Your task to perform on an android device: Find a nice sofa on eBay Image 0: 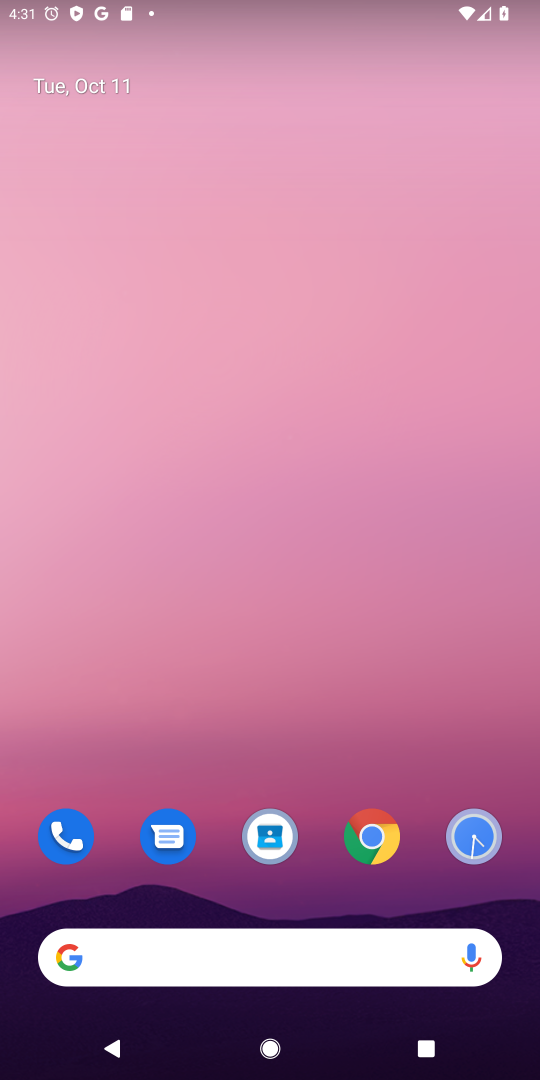
Step 0: click (249, 970)
Your task to perform on an android device: Find a nice sofa on eBay Image 1: 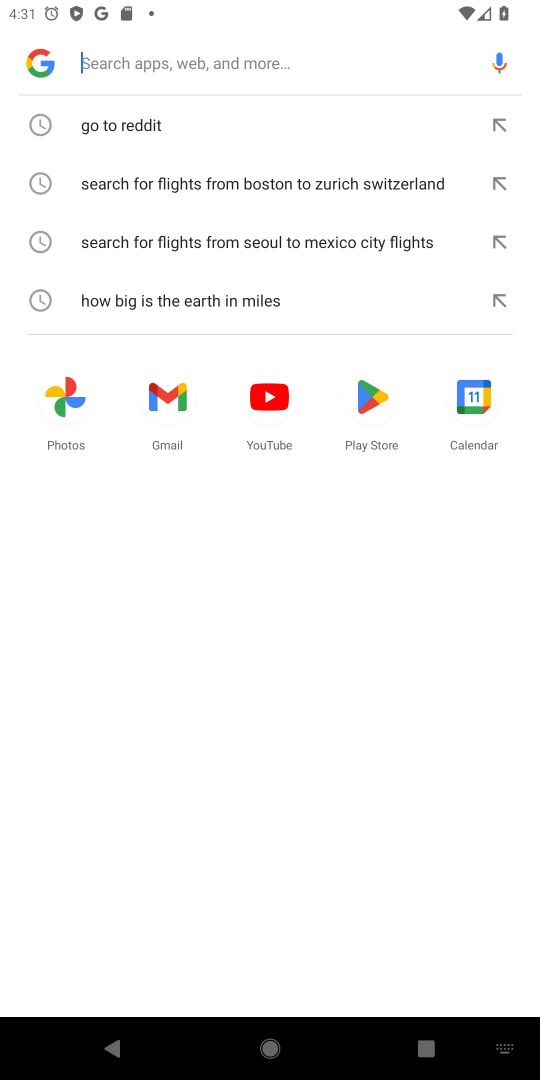
Step 1: type "ebay"
Your task to perform on an android device: Find a nice sofa on eBay Image 2: 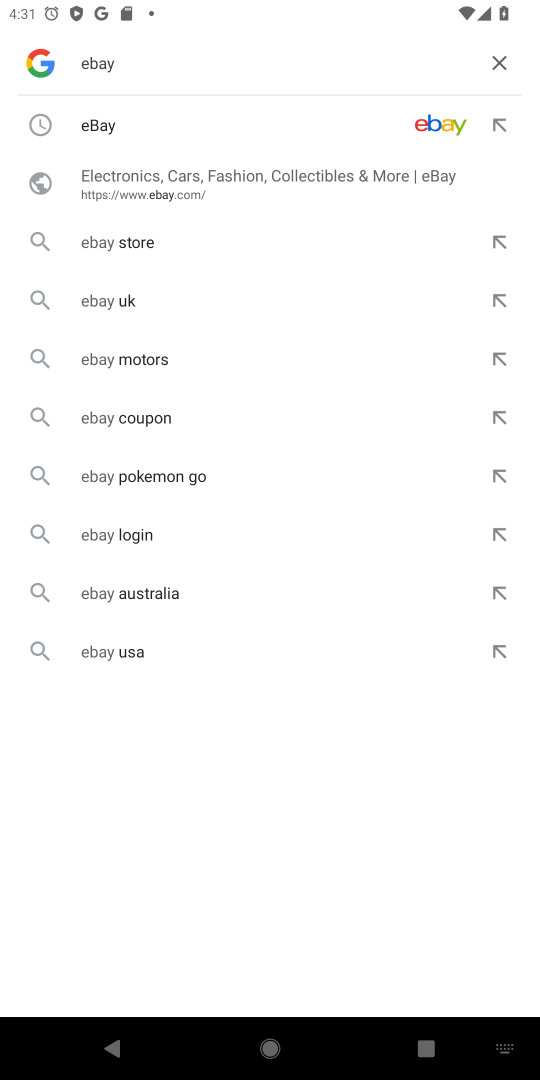
Step 2: click (202, 121)
Your task to perform on an android device: Find a nice sofa on eBay Image 3: 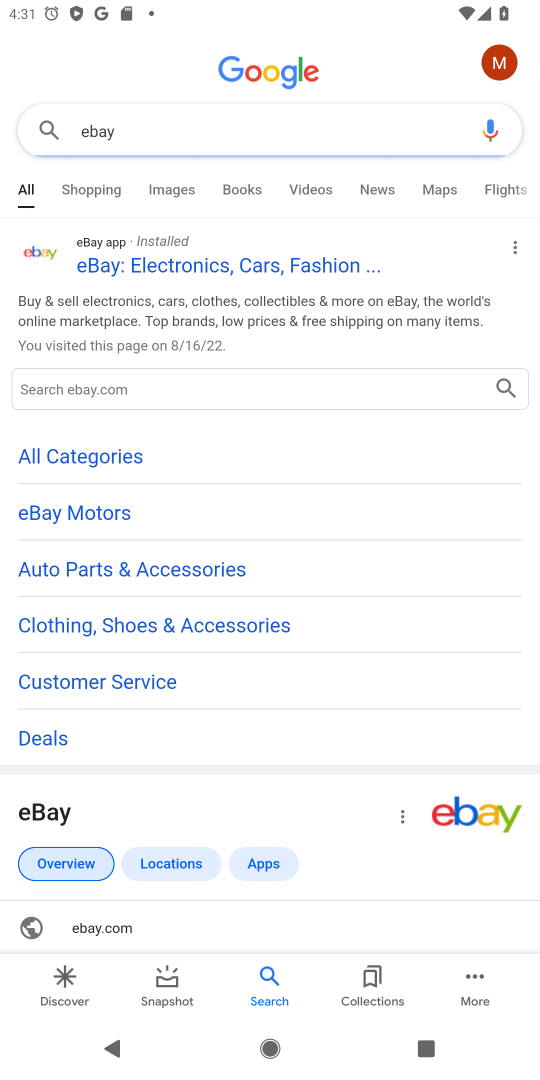
Step 3: click (181, 264)
Your task to perform on an android device: Find a nice sofa on eBay Image 4: 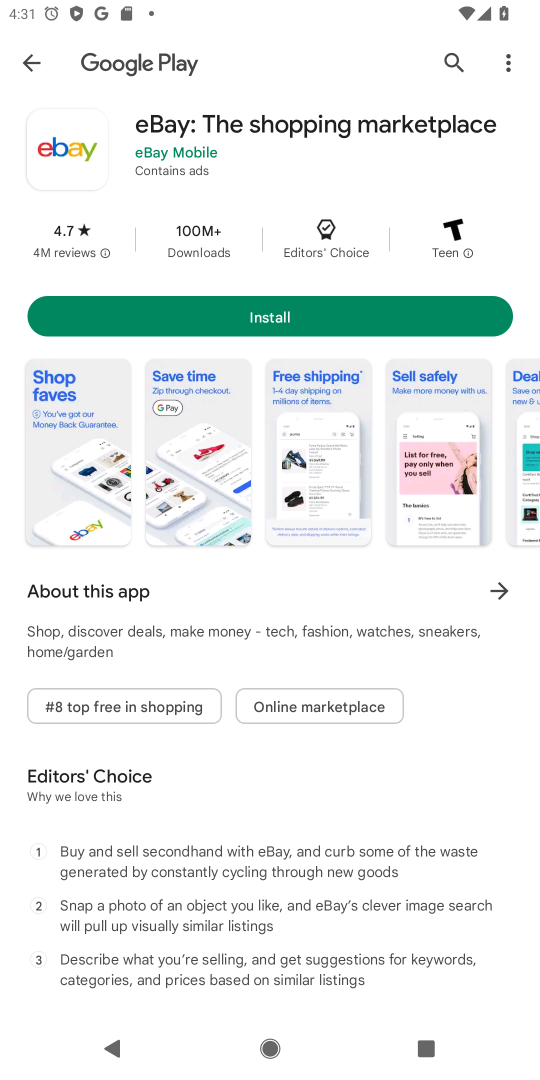
Step 4: click (191, 306)
Your task to perform on an android device: Find a nice sofa on eBay Image 5: 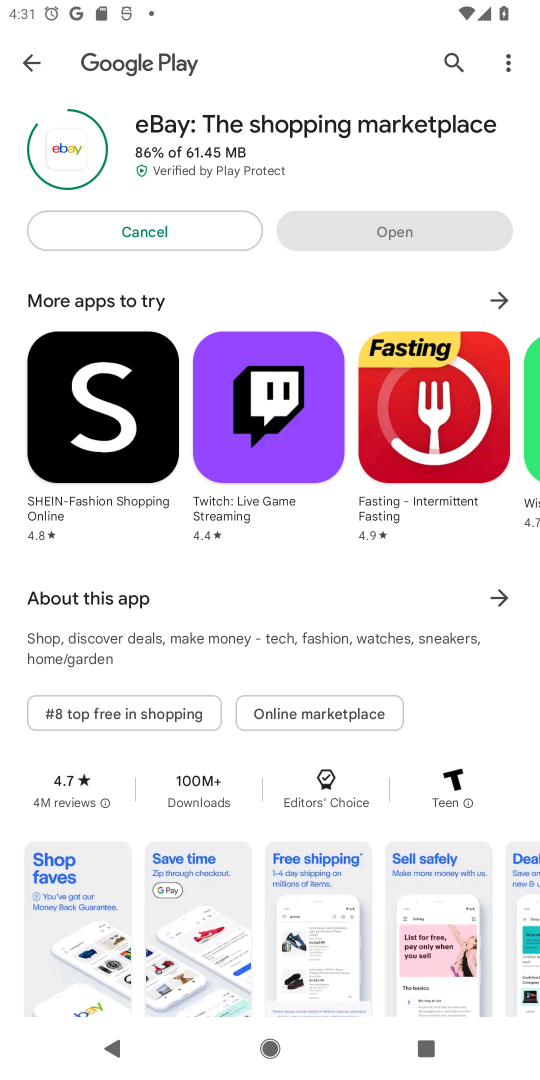
Step 5: click (41, 57)
Your task to perform on an android device: Find a nice sofa on eBay Image 6: 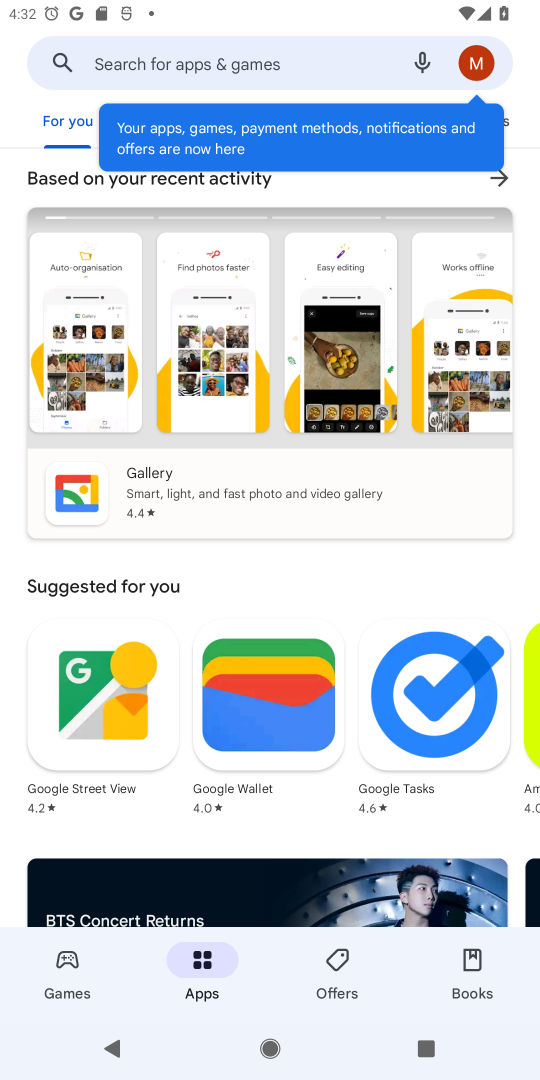
Step 6: press back button
Your task to perform on an android device: Find a nice sofa on eBay Image 7: 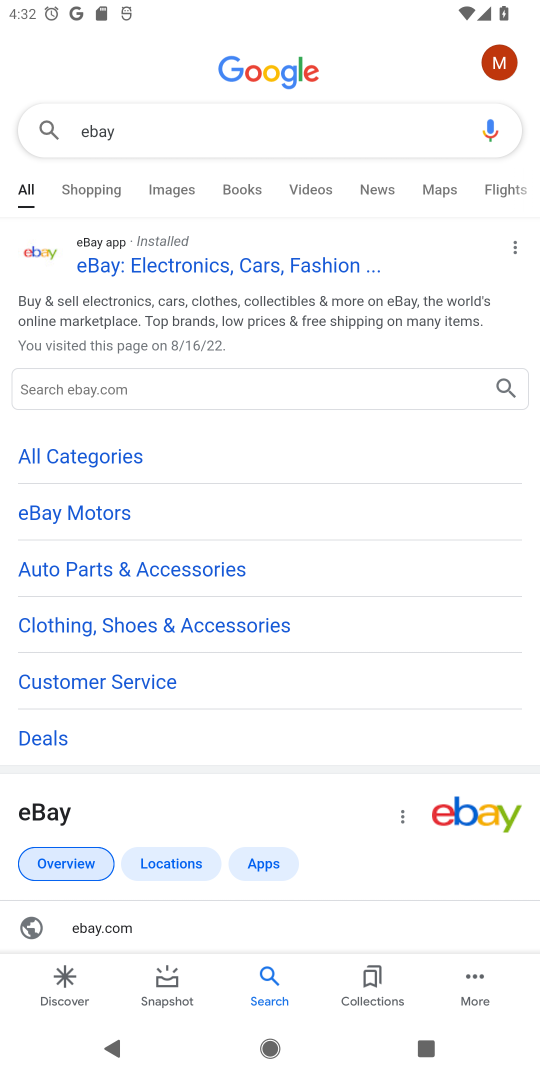
Step 7: click (232, 265)
Your task to perform on an android device: Find a nice sofa on eBay Image 8: 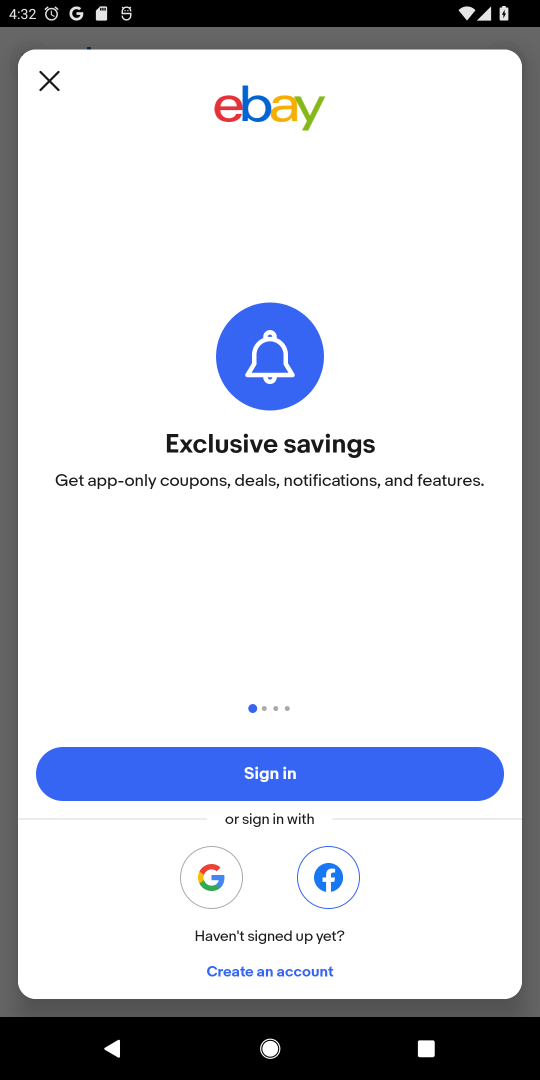
Step 8: click (232, 138)
Your task to perform on an android device: Find a nice sofa on eBay Image 9: 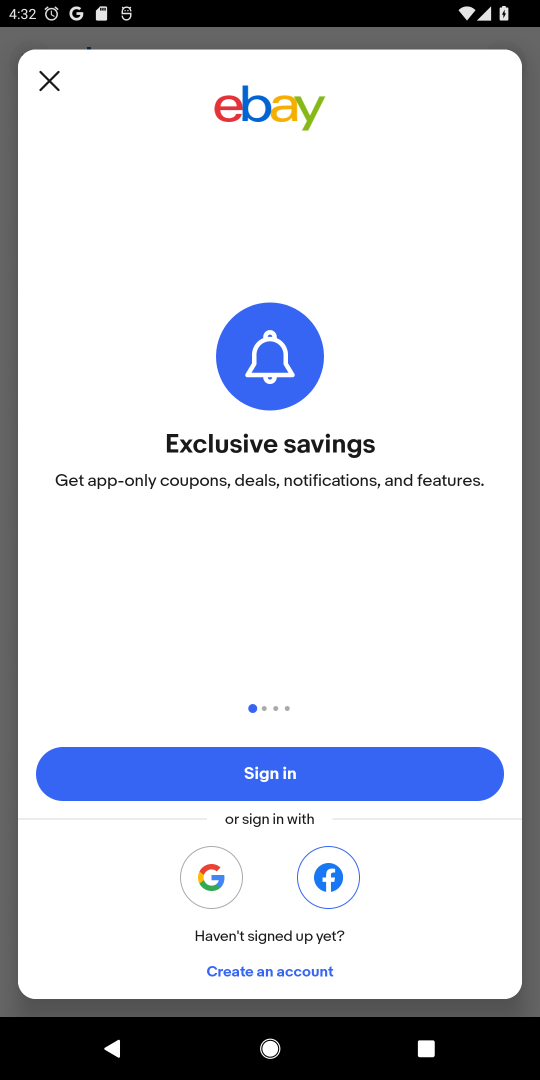
Step 9: click (58, 90)
Your task to perform on an android device: Find a nice sofa on eBay Image 10: 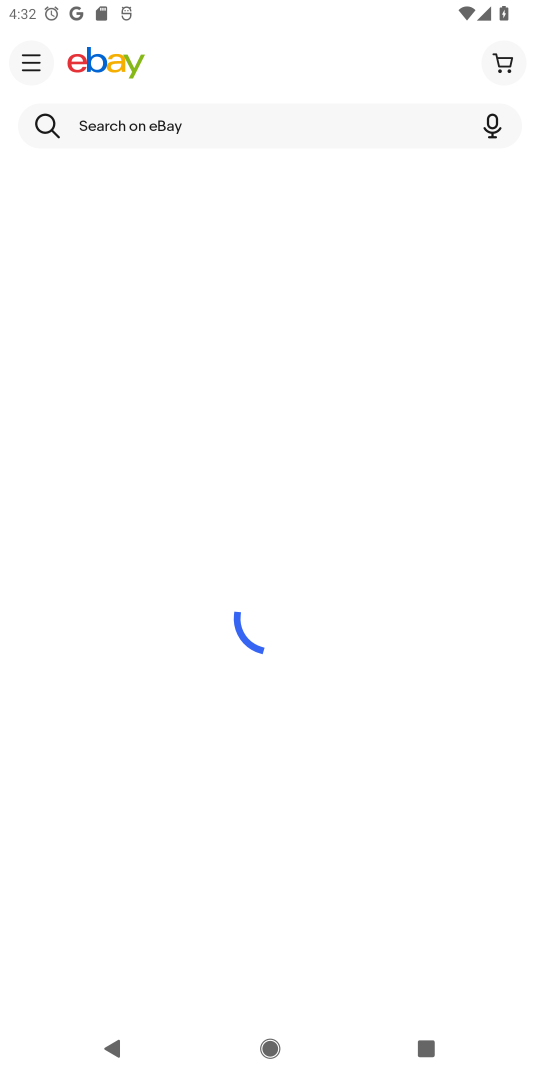
Step 10: click (279, 125)
Your task to perform on an android device: Find a nice sofa on eBay Image 11: 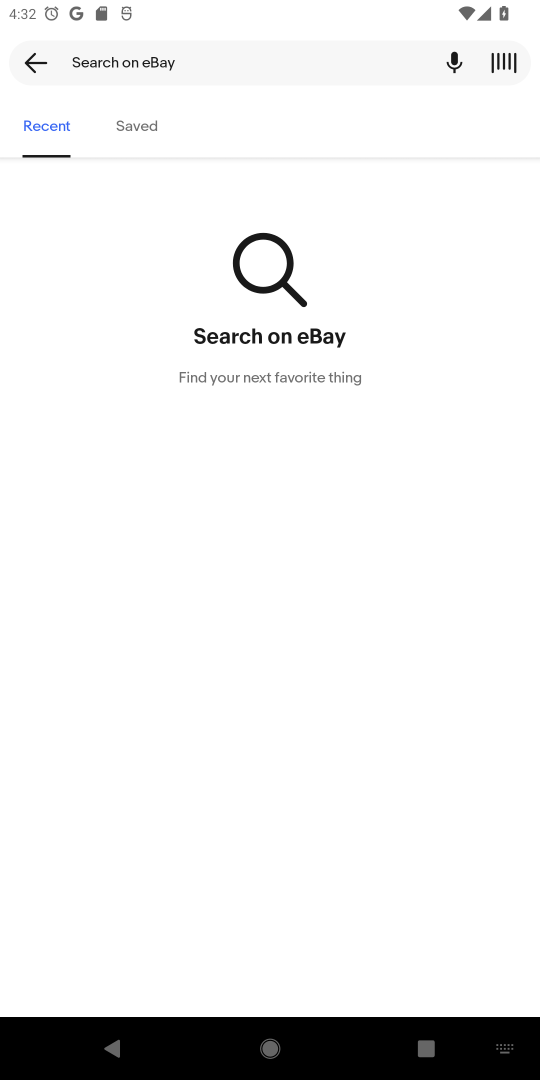
Step 11: type "sofa"
Your task to perform on an android device: Find a nice sofa on eBay Image 12: 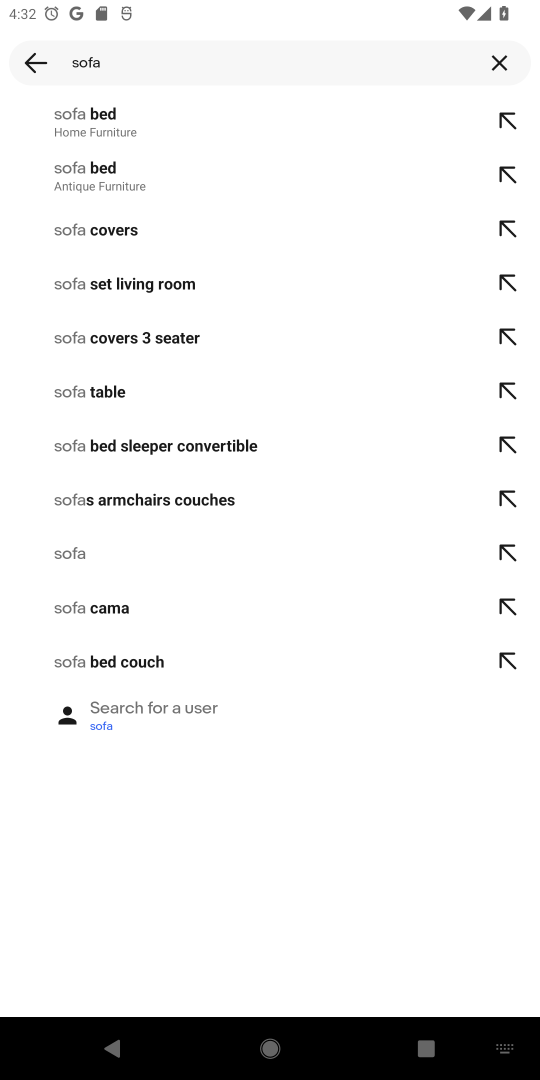
Step 12: click (118, 104)
Your task to perform on an android device: Find a nice sofa on eBay Image 13: 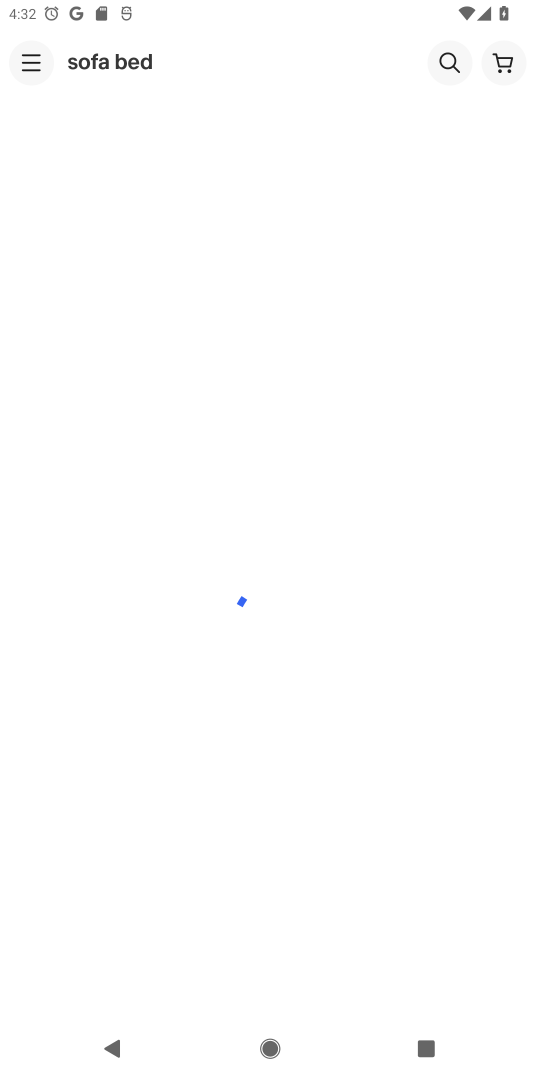
Step 13: task complete